Your task to perform on an android device: Open accessibility settings Image 0: 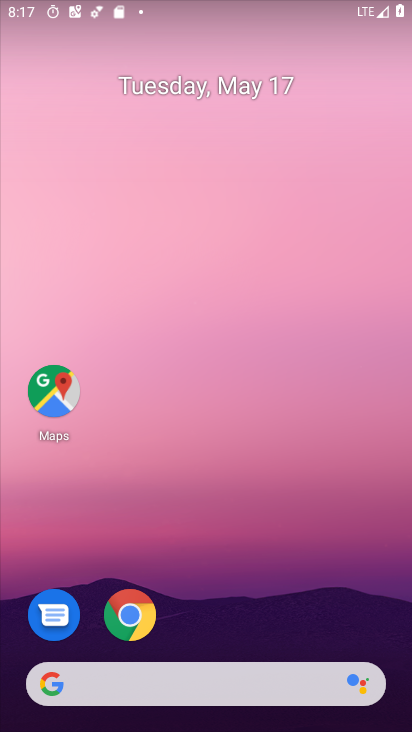
Step 0: drag from (222, 626) to (252, 142)
Your task to perform on an android device: Open accessibility settings Image 1: 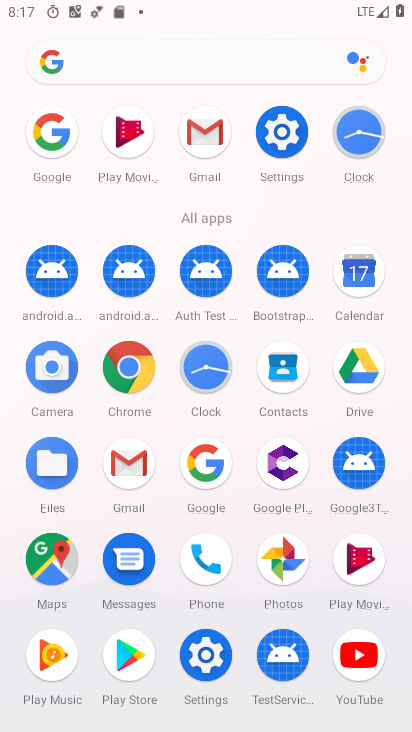
Step 1: click (286, 153)
Your task to perform on an android device: Open accessibility settings Image 2: 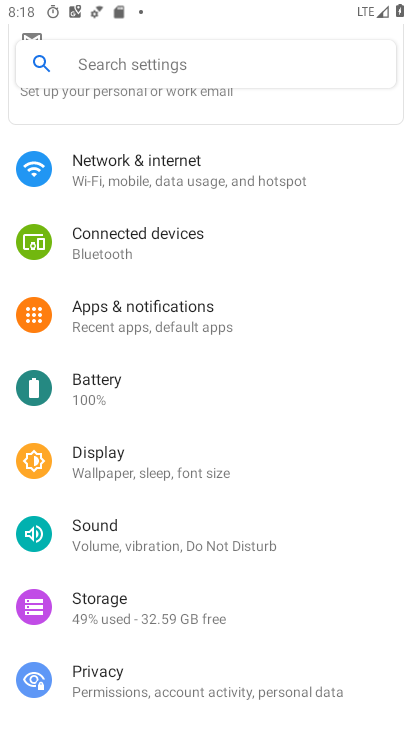
Step 2: drag from (252, 614) to (272, 159)
Your task to perform on an android device: Open accessibility settings Image 3: 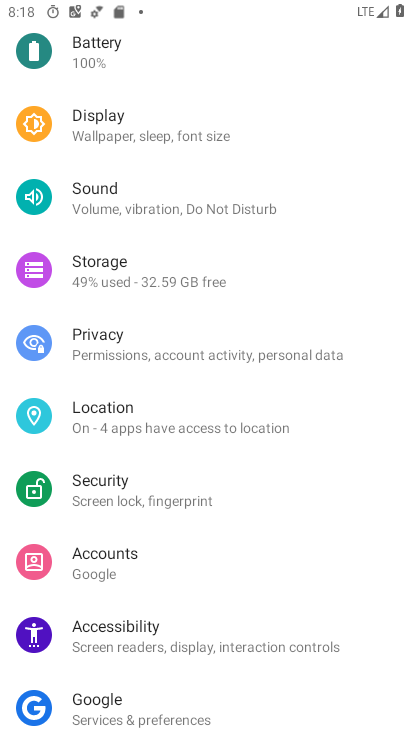
Step 3: click (206, 636)
Your task to perform on an android device: Open accessibility settings Image 4: 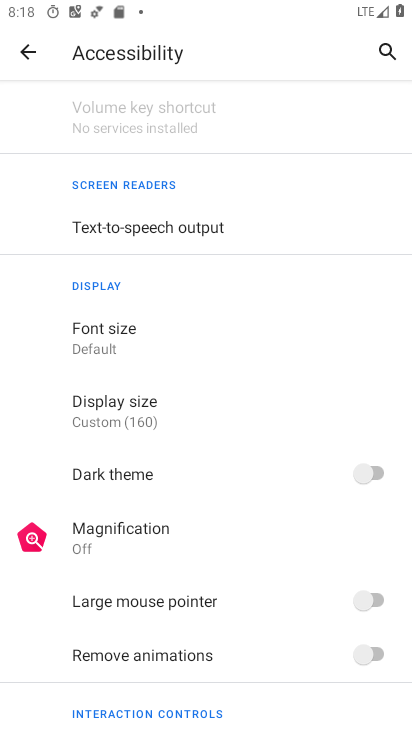
Step 4: task complete